Your task to perform on an android device: Empty the shopping cart on bestbuy.com. Add "asus rog" to the cart on bestbuy.com Image 0: 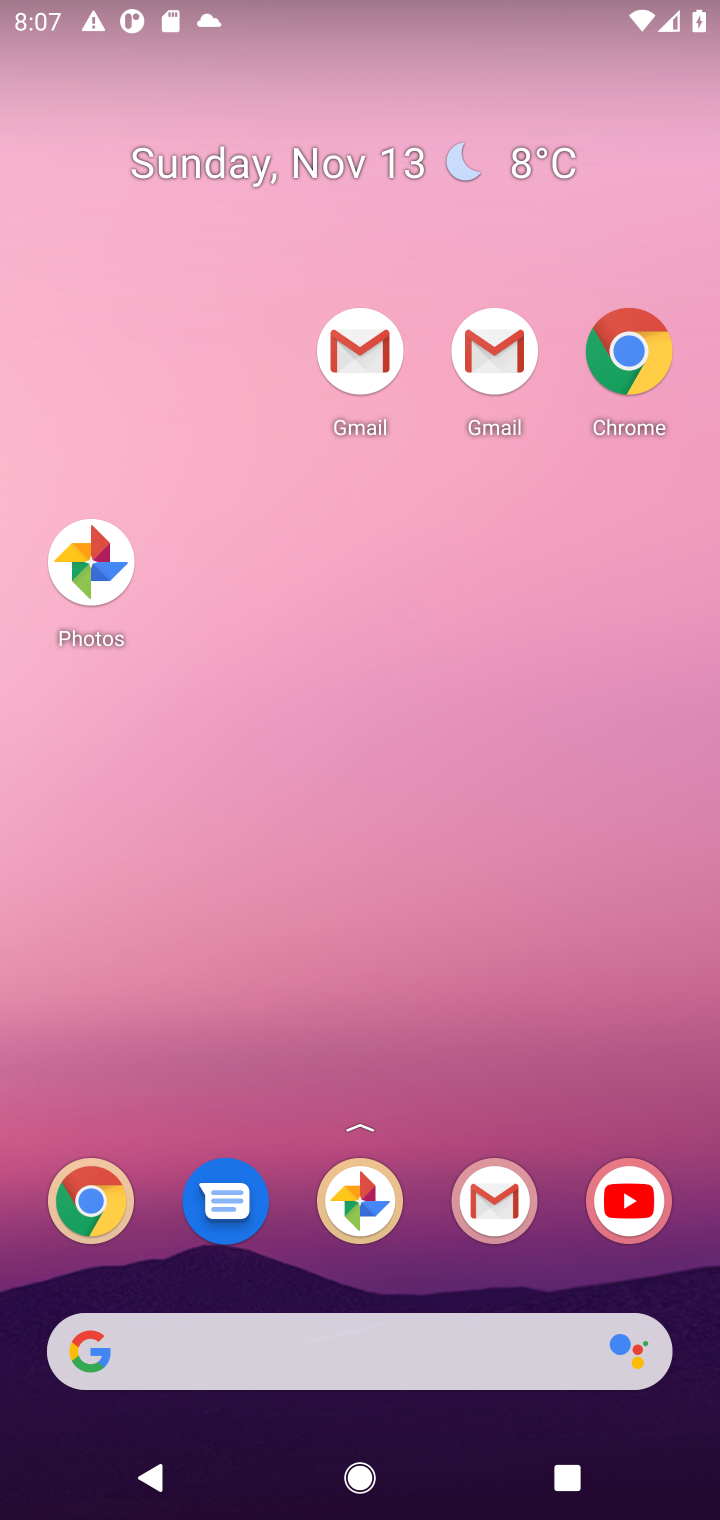
Step 0: drag from (404, 1276) to (457, 140)
Your task to perform on an android device: Empty the shopping cart on bestbuy.com. Add "asus rog" to the cart on bestbuy.com Image 1: 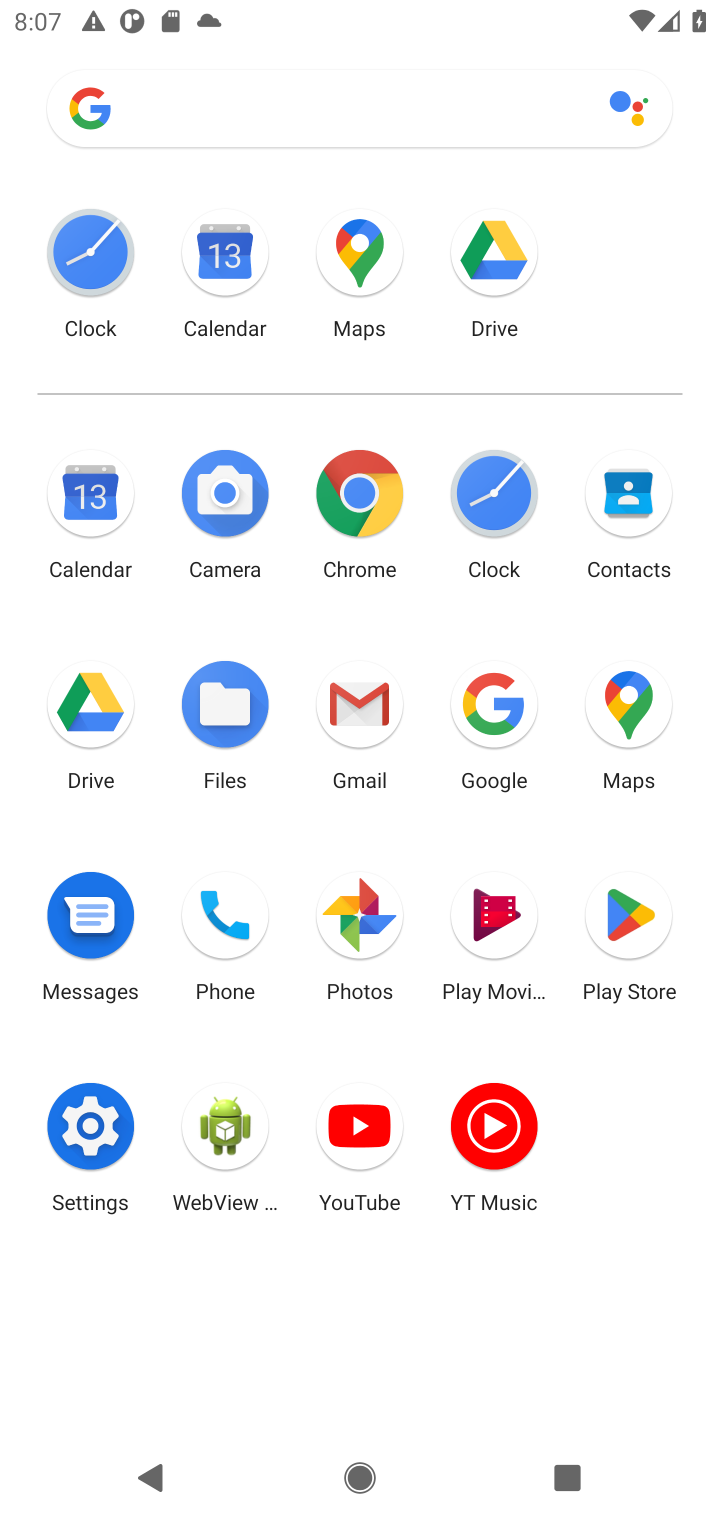
Step 1: click (374, 503)
Your task to perform on an android device: Empty the shopping cart on bestbuy.com. Add "asus rog" to the cart on bestbuy.com Image 2: 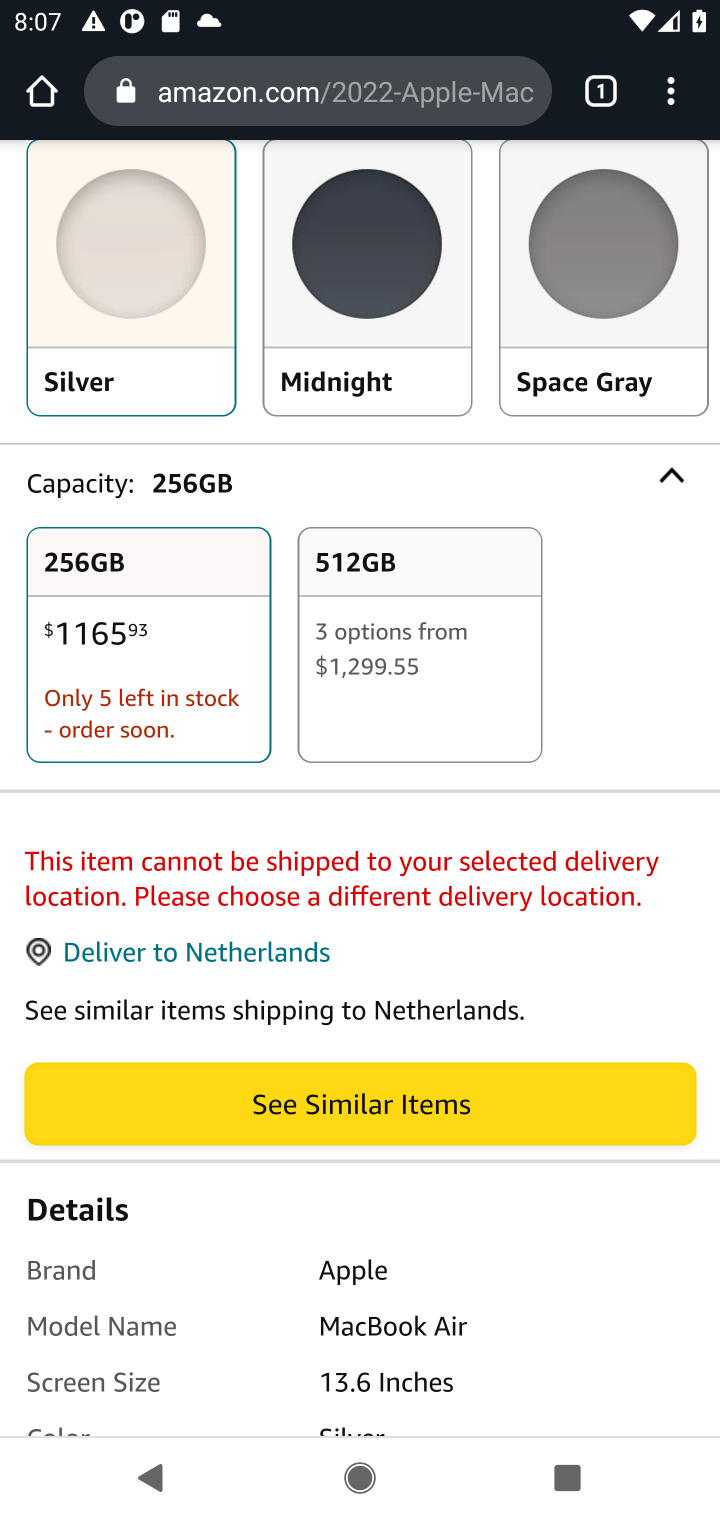
Step 2: click (233, 104)
Your task to perform on an android device: Empty the shopping cart on bestbuy.com. Add "asus rog" to the cart on bestbuy.com Image 3: 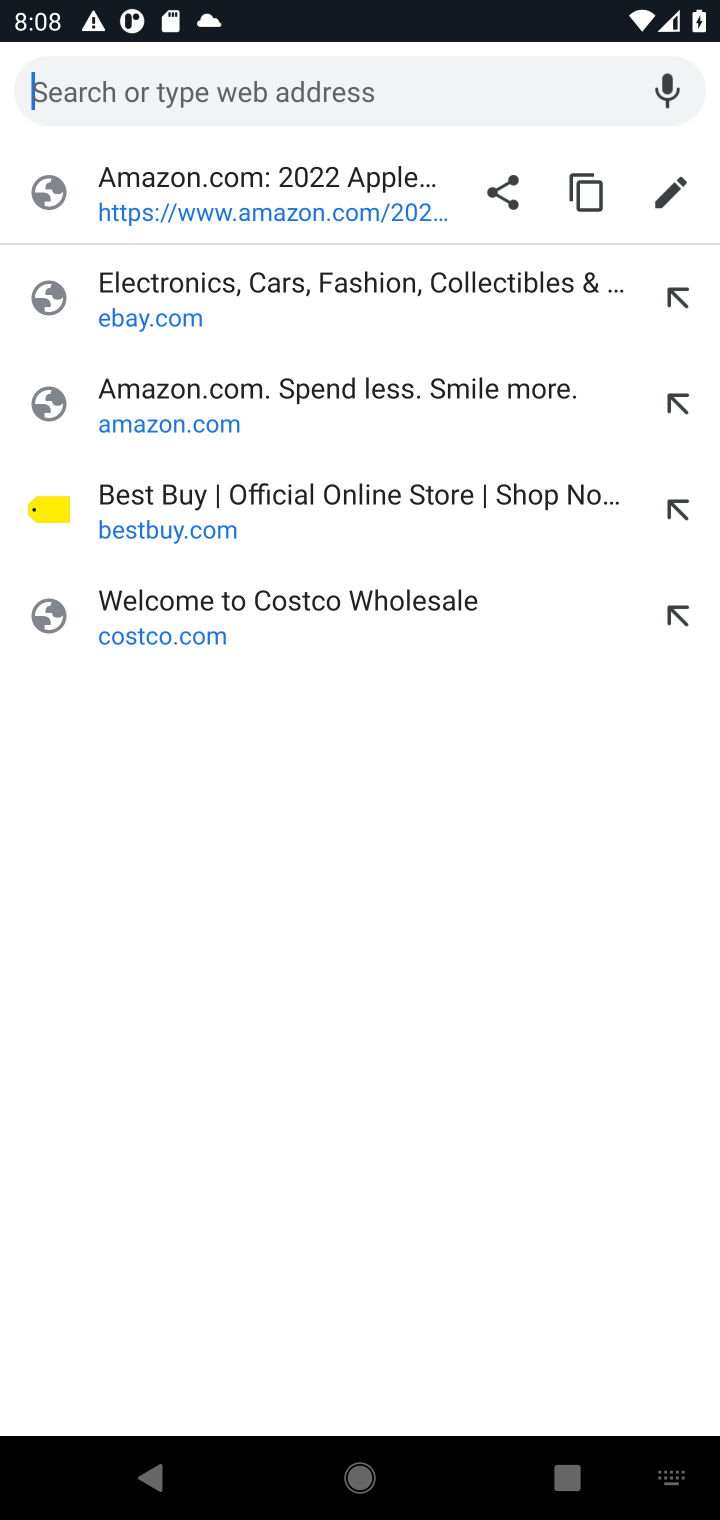
Step 3: type "bestbuy.com"
Your task to perform on an android device: Empty the shopping cart on bestbuy.com. Add "asus rog" to the cart on bestbuy.com Image 4: 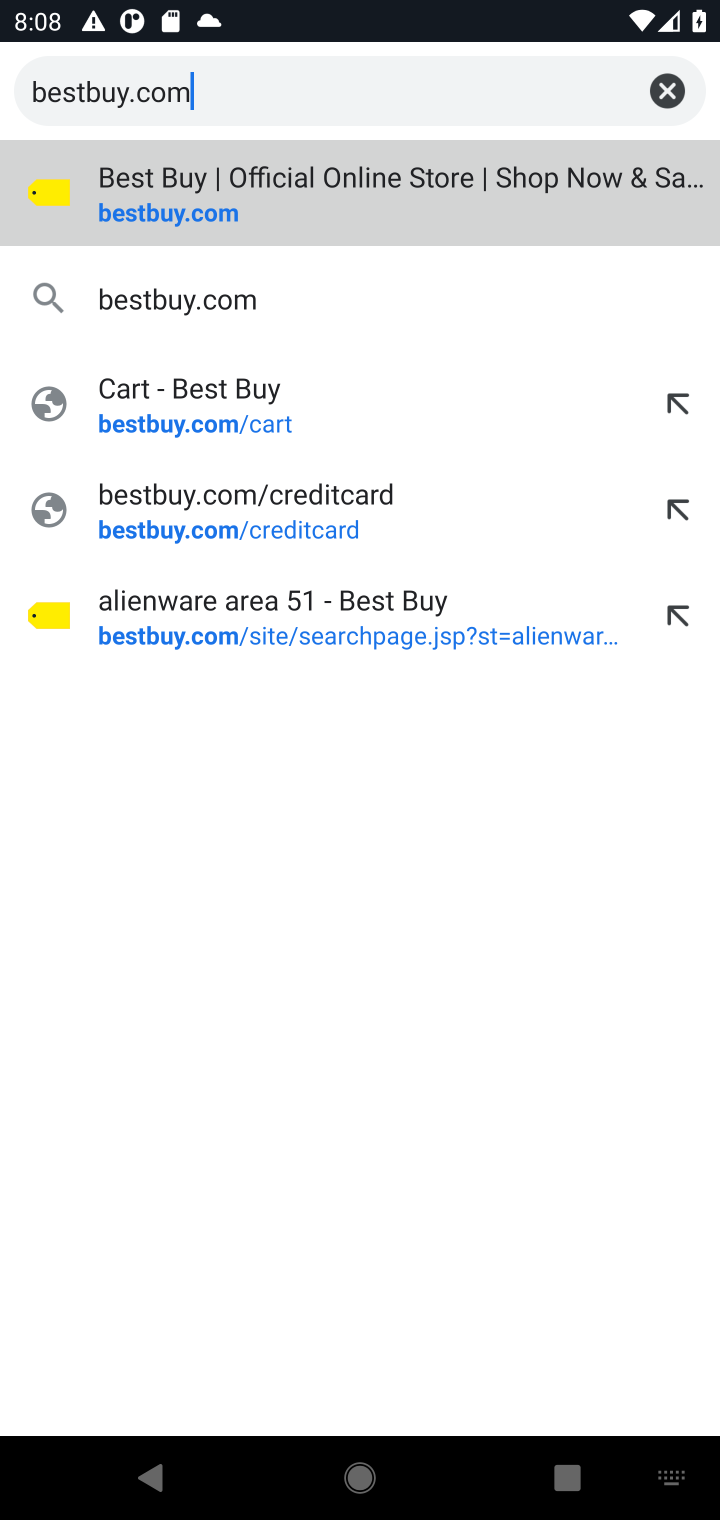
Step 4: press enter
Your task to perform on an android device: Empty the shopping cart on bestbuy.com. Add "asus rog" to the cart on bestbuy.com Image 5: 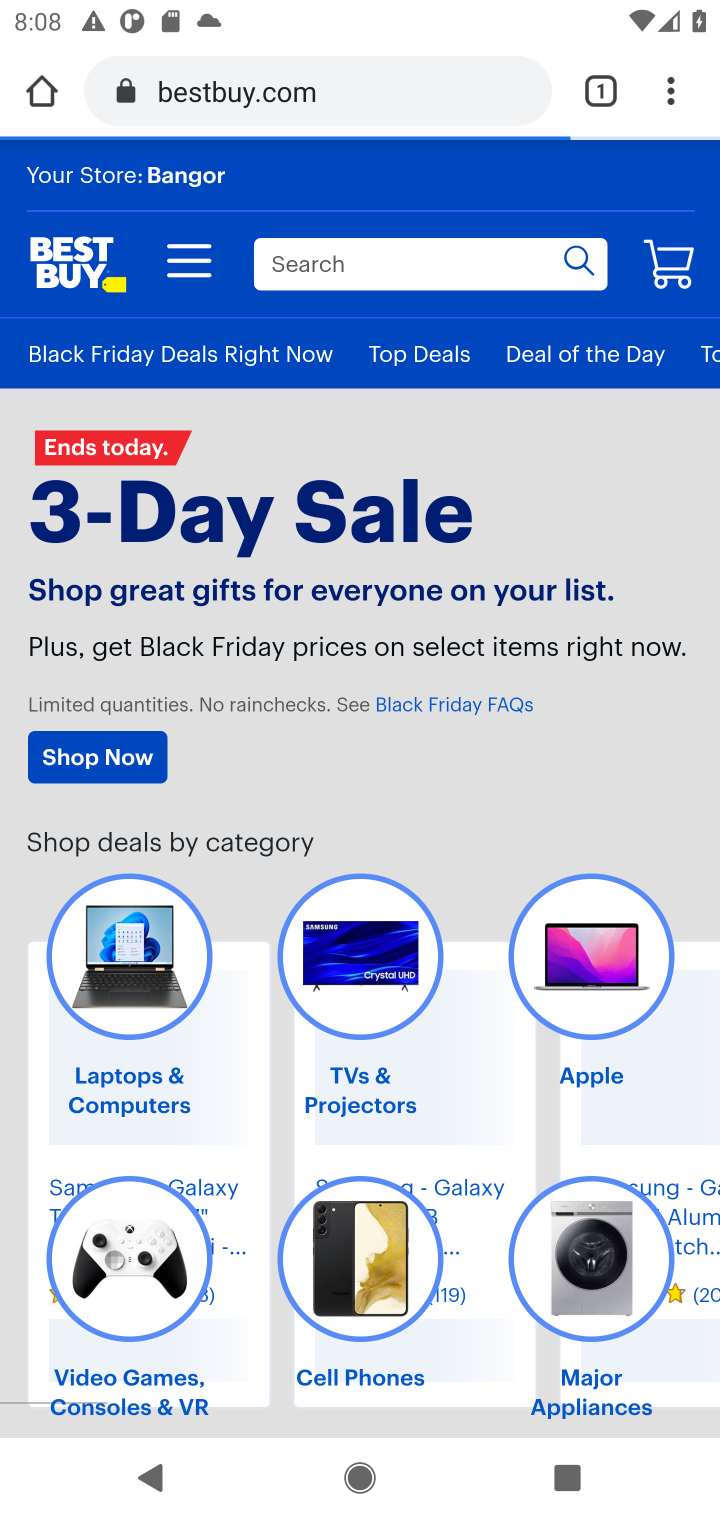
Step 5: click (666, 263)
Your task to perform on an android device: Empty the shopping cart on bestbuy.com. Add "asus rog" to the cart on bestbuy.com Image 6: 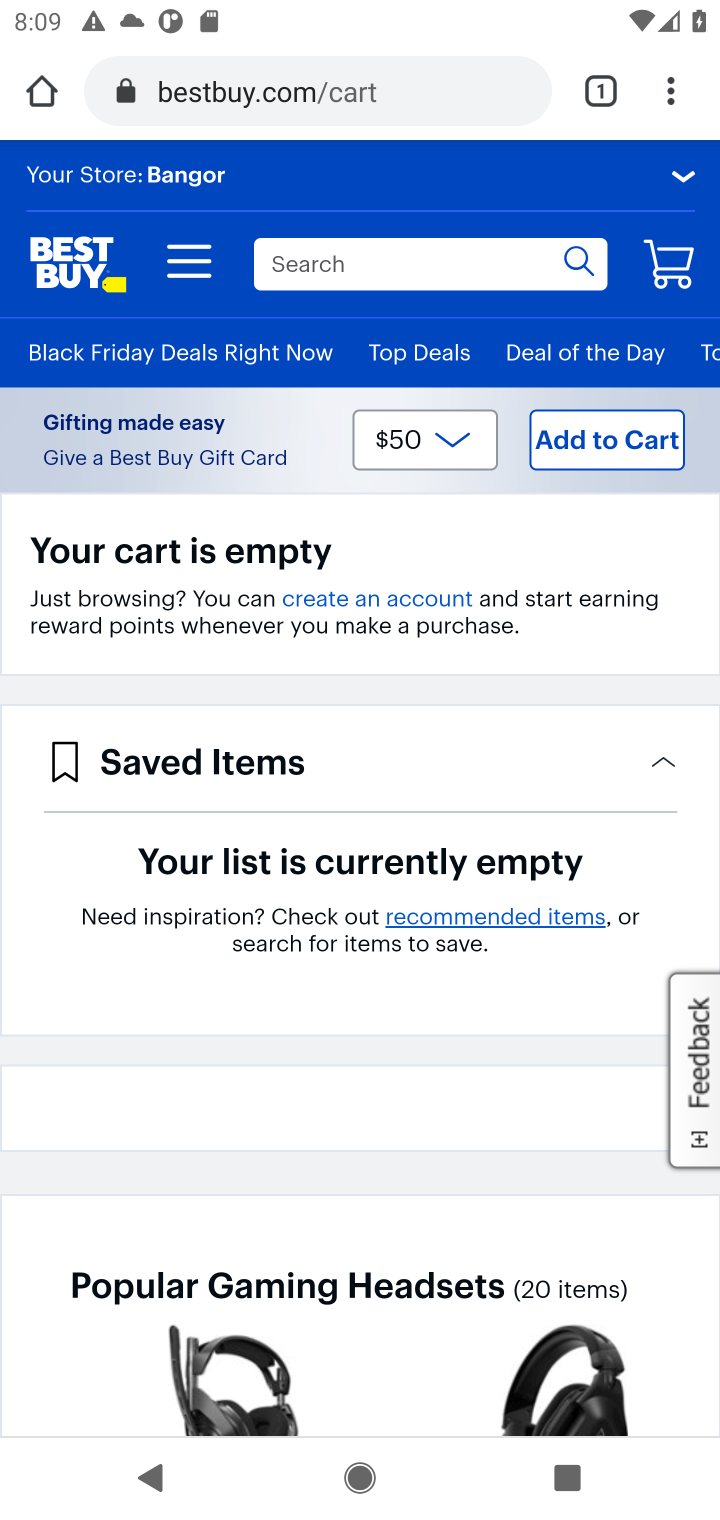
Step 6: click (468, 272)
Your task to perform on an android device: Empty the shopping cart on bestbuy.com. Add "asus rog" to the cart on bestbuy.com Image 7: 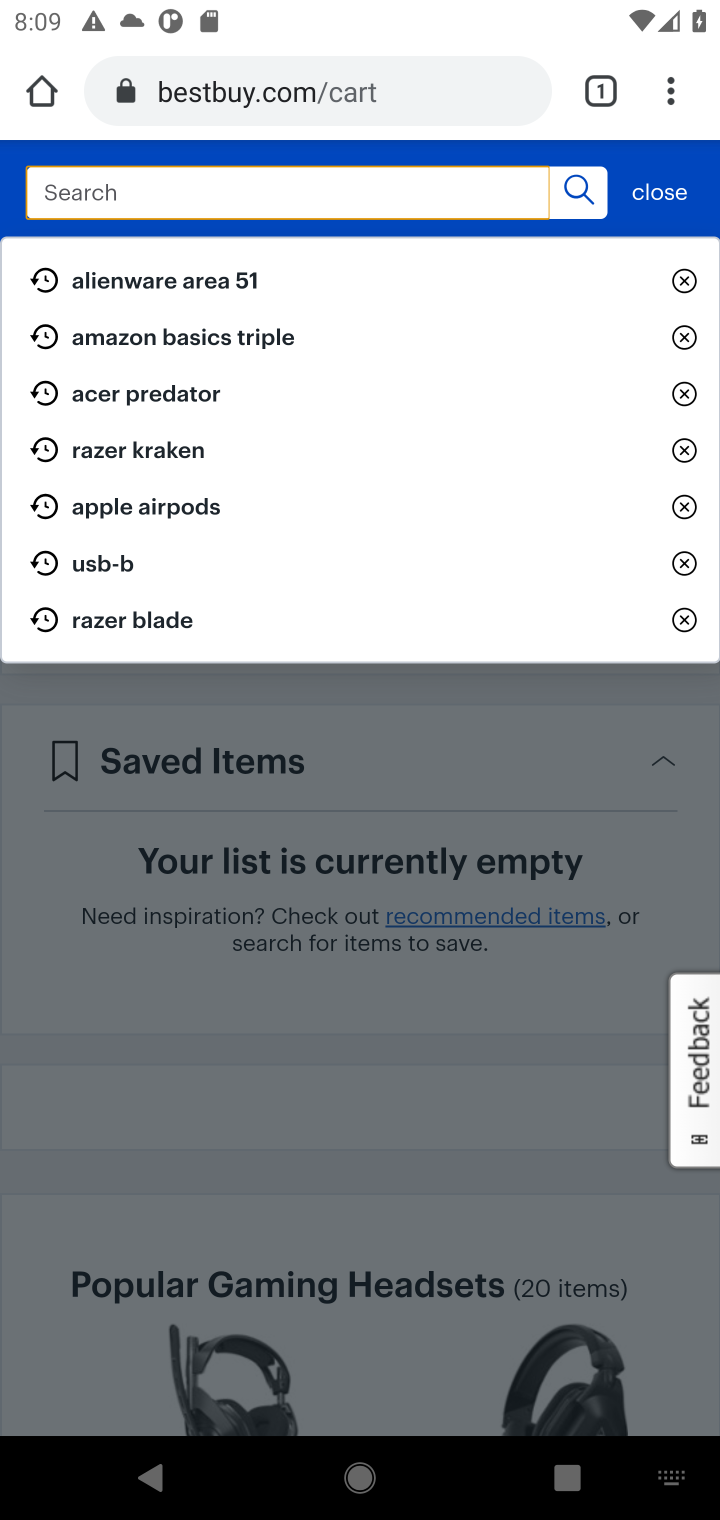
Step 7: type "asus rog"
Your task to perform on an android device: Empty the shopping cart on bestbuy.com. Add "asus rog" to the cart on bestbuy.com Image 8: 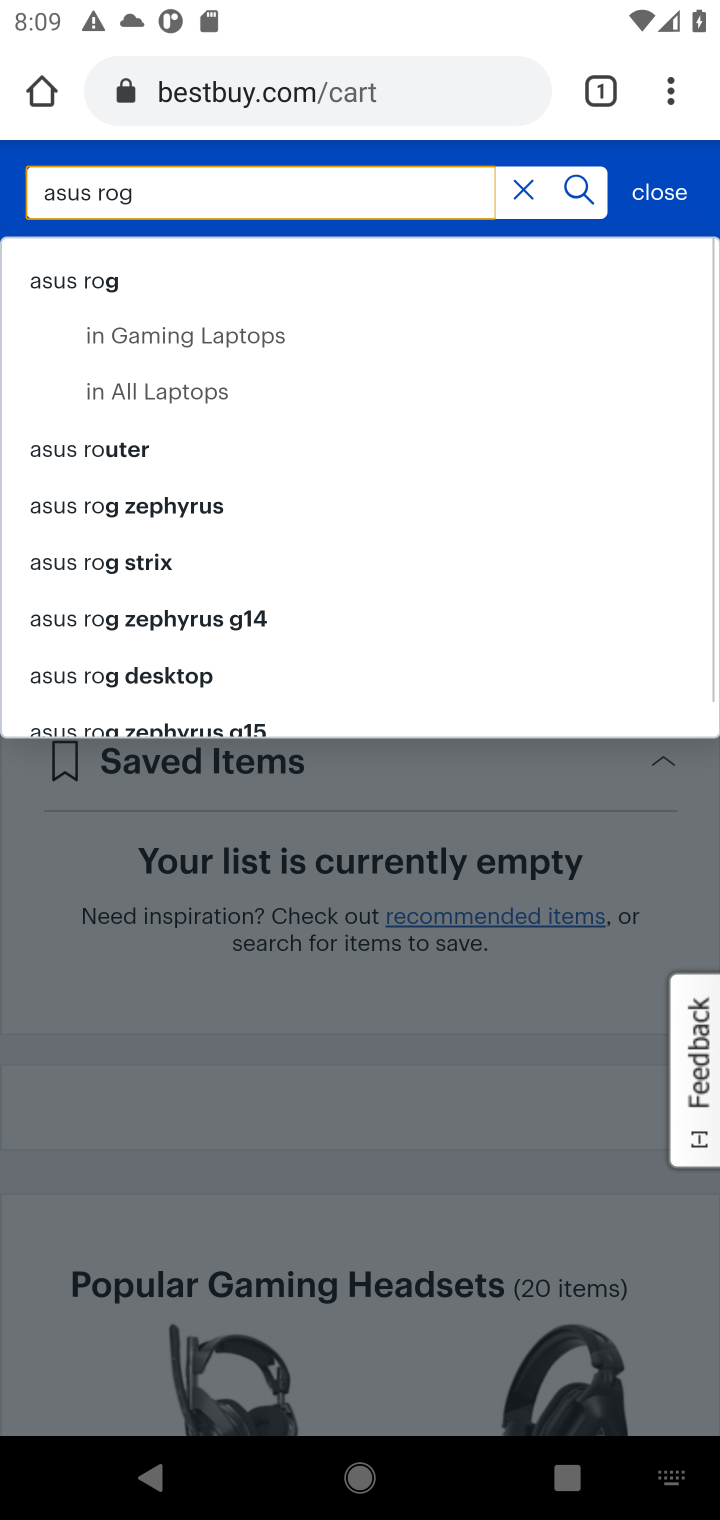
Step 8: press enter
Your task to perform on an android device: Empty the shopping cart on bestbuy.com. Add "asus rog" to the cart on bestbuy.com Image 9: 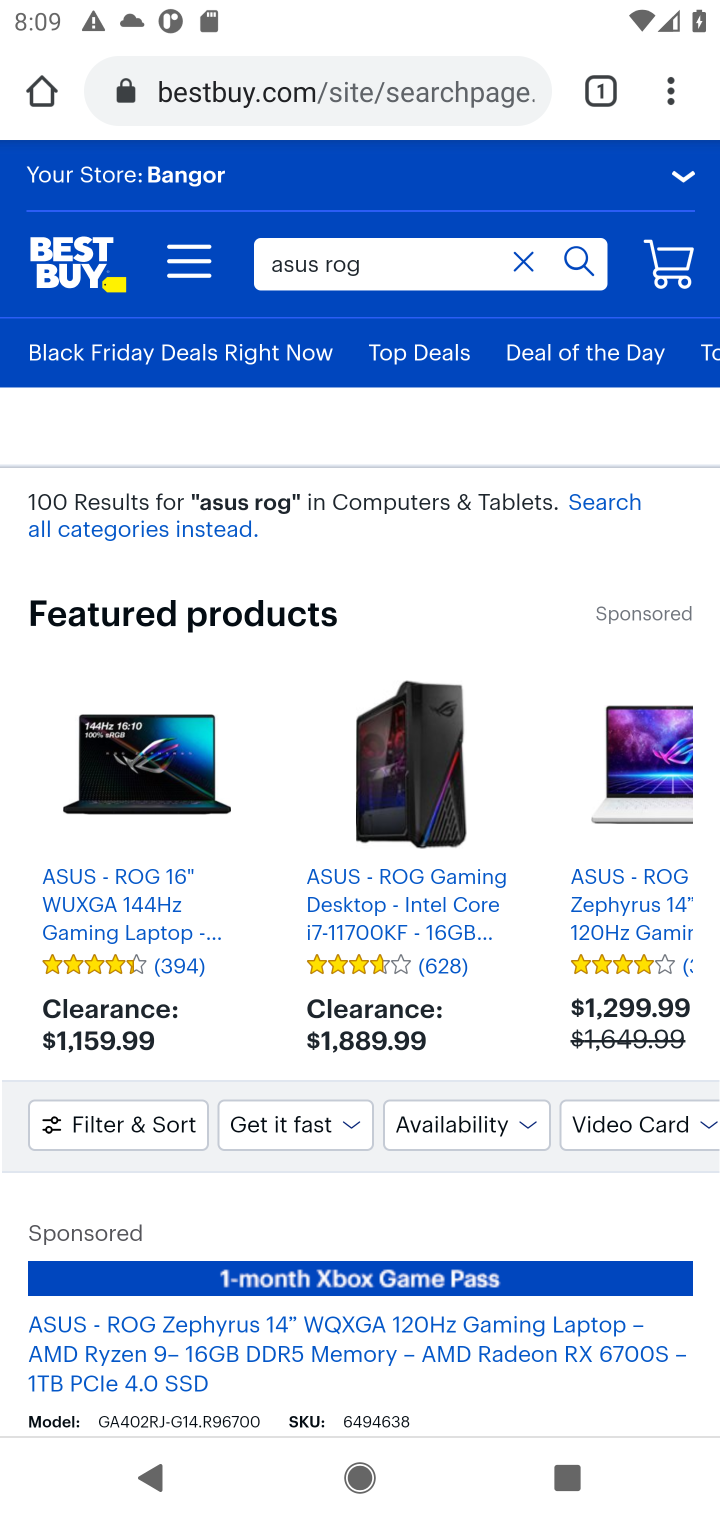
Step 9: drag from (398, 1282) to (445, 531)
Your task to perform on an android device: Empty the shopping cart on bestbuy.com. Add "asus rog" to the cart on bestbuy.com Image 10: 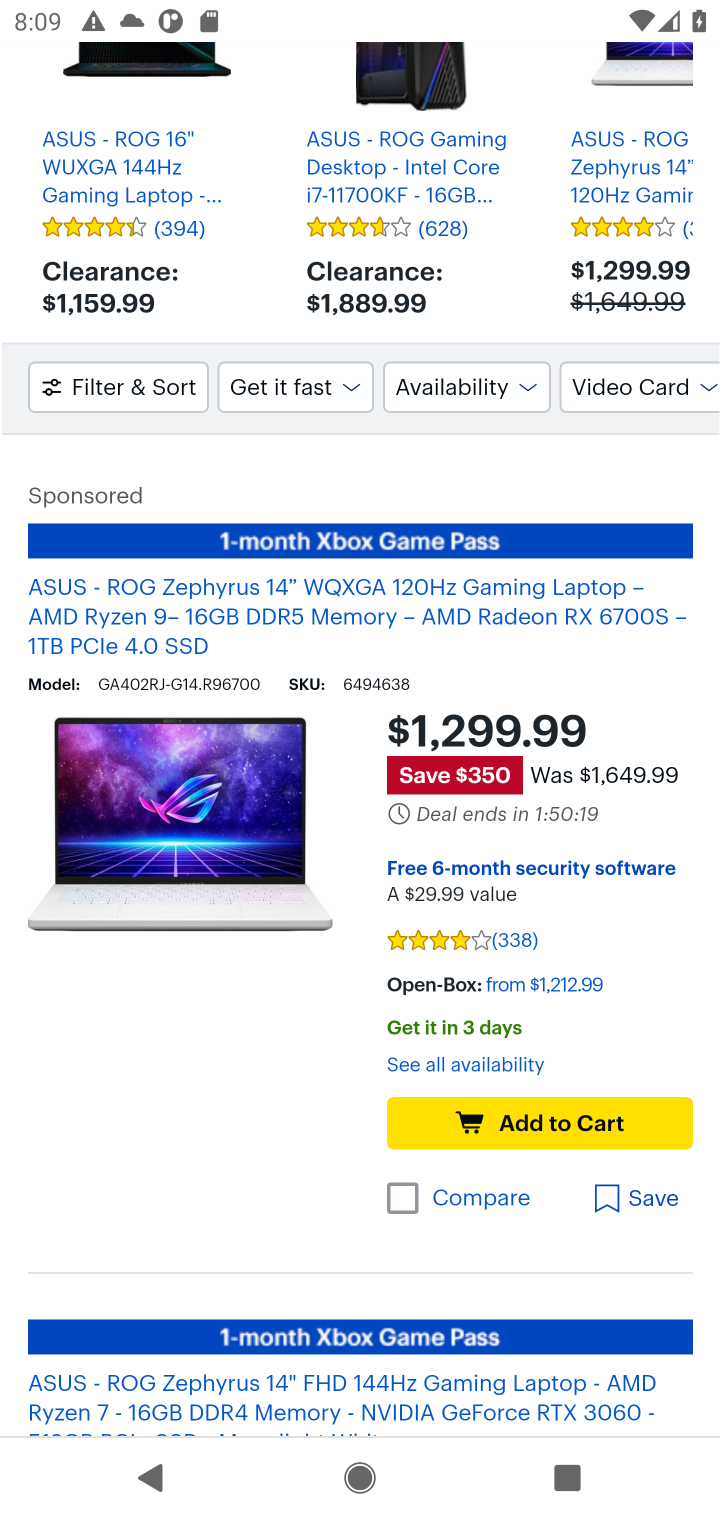
Step 10: drag from (196, 1111) to (363, 575)
Your task to perform on an android device: Empty the shopping cart on bestbuy.com. Add "asus rog" to the cart on bestbuy.com Image 11: 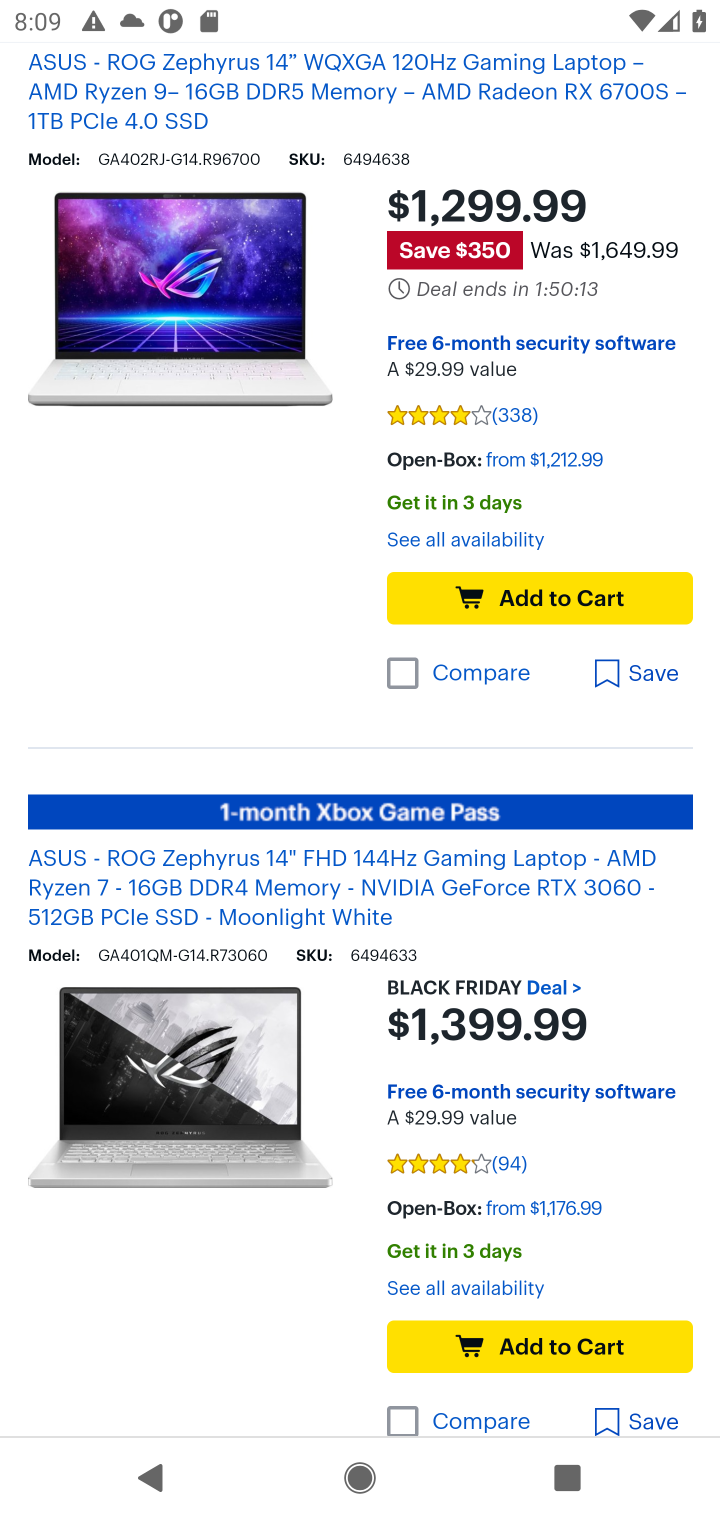
Step 11: click (587, 1338)
Your task to perform on an android device: Empty the shopping cart on bestbuy.com. Add "asus rog" to the cart on bestbuy.com Image 12: 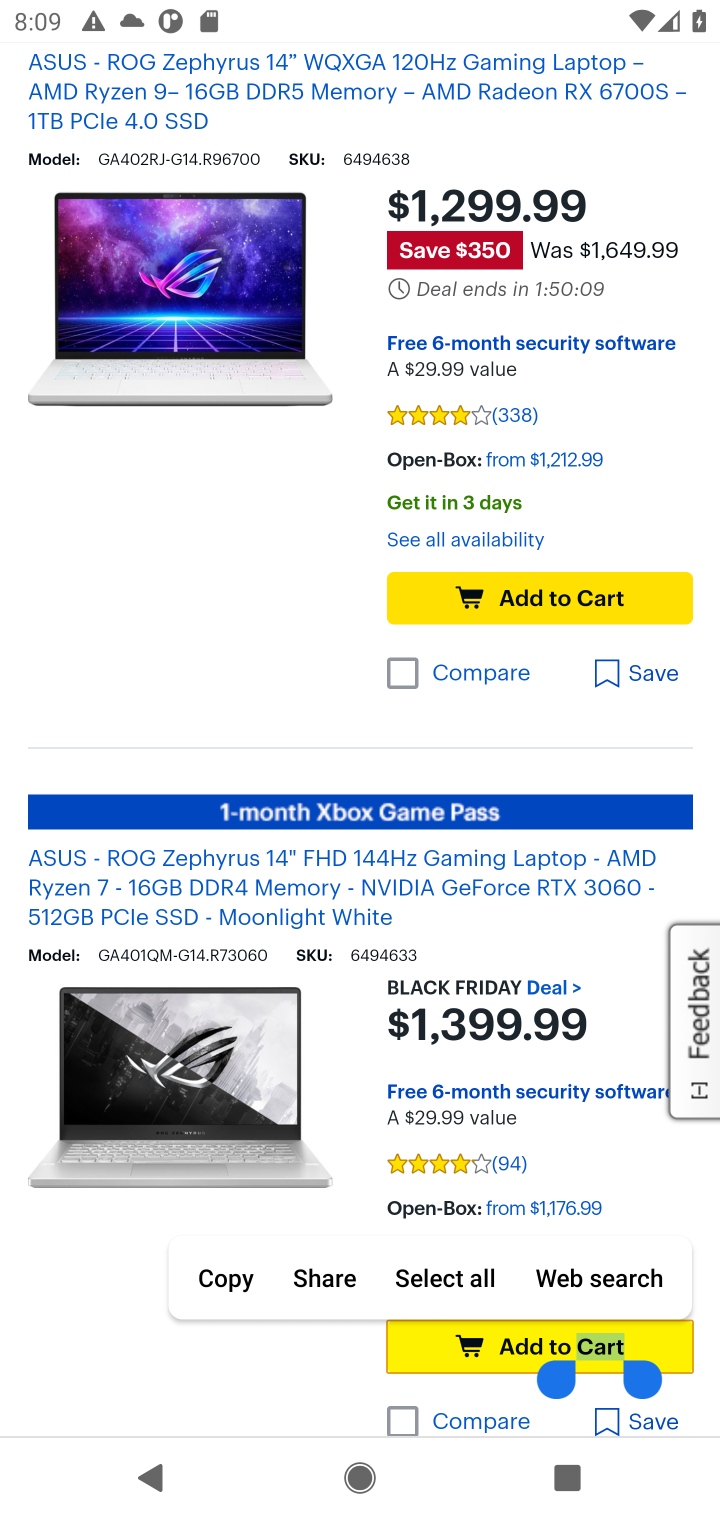
Step 12: click (514, 1342)
Your task to perform on an android device: Empty the shopping cart on bestbuy.com. Add "asus rog" to the cart on bestbuy.com Image 13: 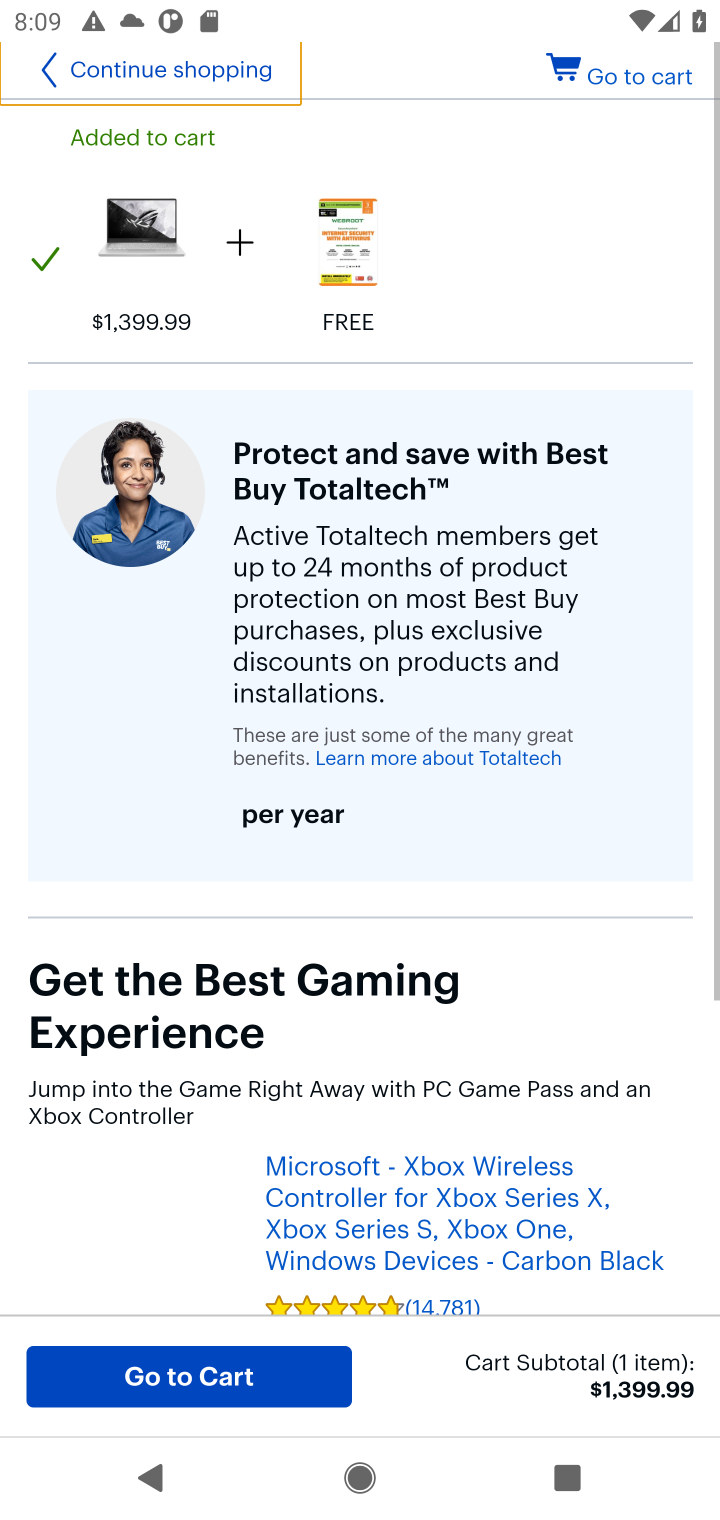
Step 13: task complete